Your task to perform on an android device: turn off translation in the chrome app Image 0: 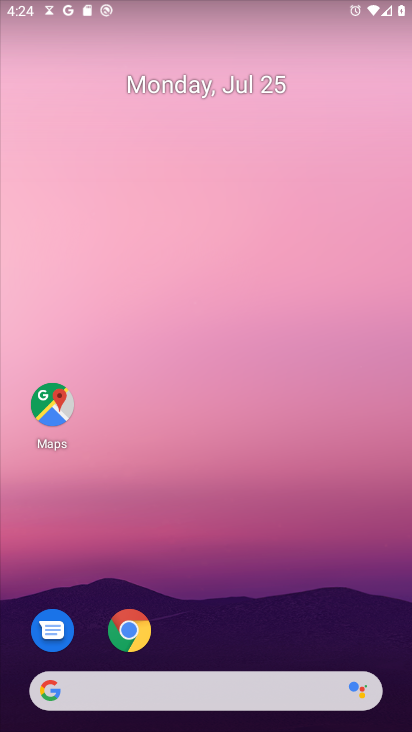
Step 0: click (129, 633)
Your task to perform on an android device: turn off translation in the chrome app Image 1: 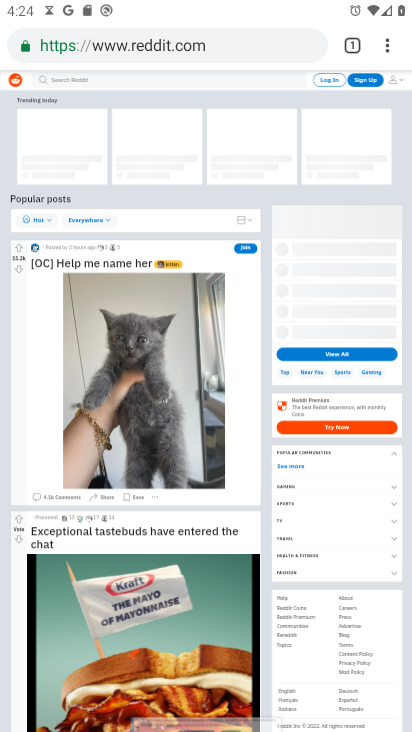
Step 1: press home button
Your task to perform on an android device: turn off translation in the chrome app Image 2: 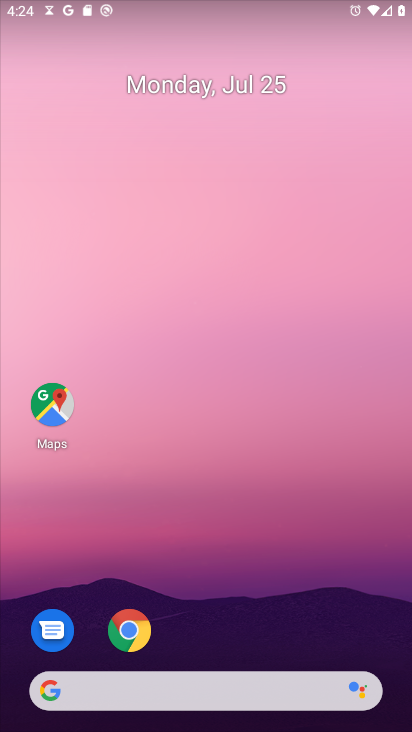
Step 2: click (130, 630)
Your task to perform on an android device: turn off translation in the chrome app Image 3: 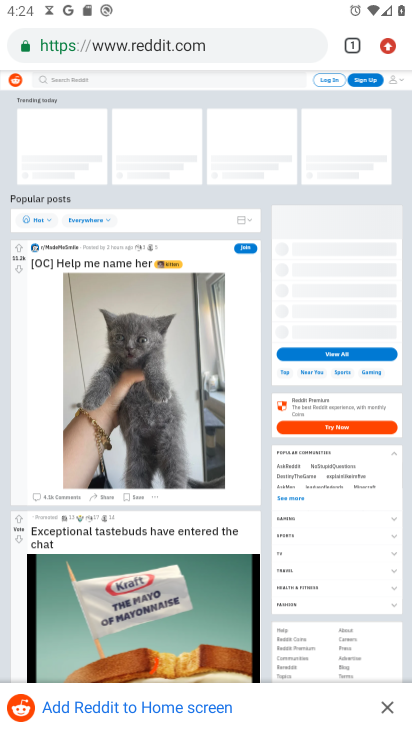
Step 3: click (388, 48)
Your task to perform on an android device: turn off translation in the chrome app Image 4: 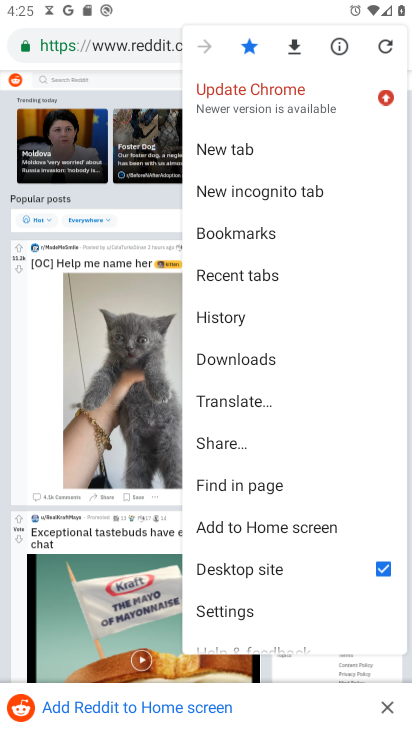
Step 4: click (233, 612)
Your task to perform on an android device: turn off translation in the chrome app Image 5: 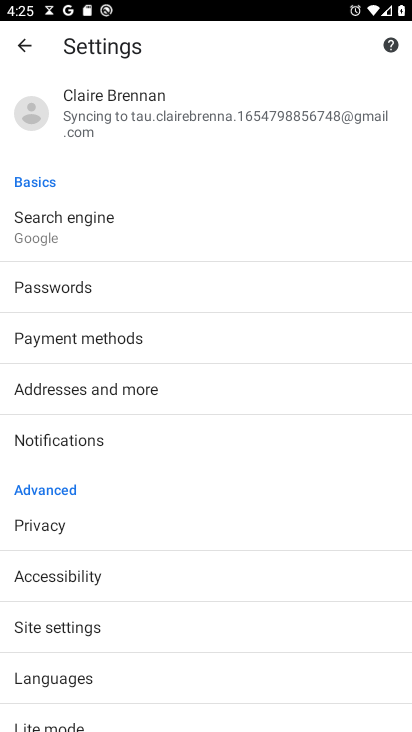
Step 5: click (82, 678)
Your task to perform on an android device: turn off translation in the chrome app Image 6: 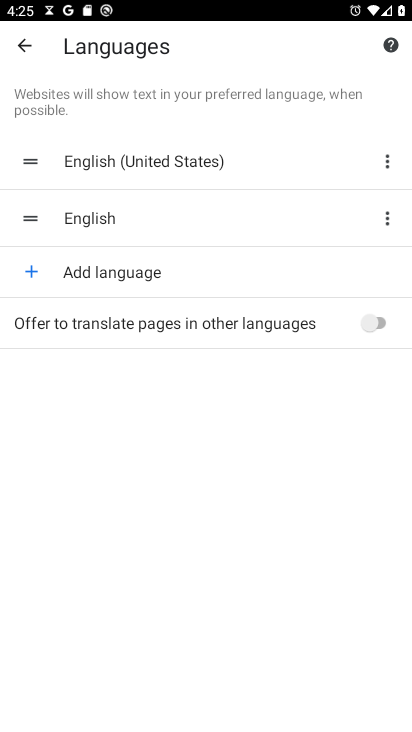
Step 6: task complete